Your task to perform on an android device: Open Amazon Image 0: 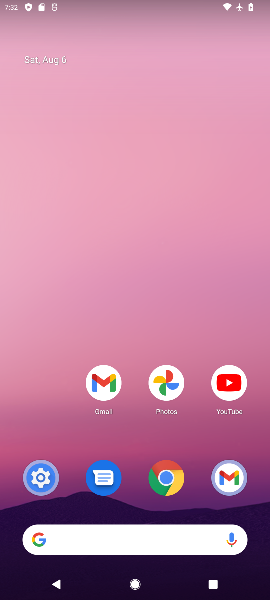
Step 0: press home button
Your task to perform on an android device: Open Amazon Image 1: 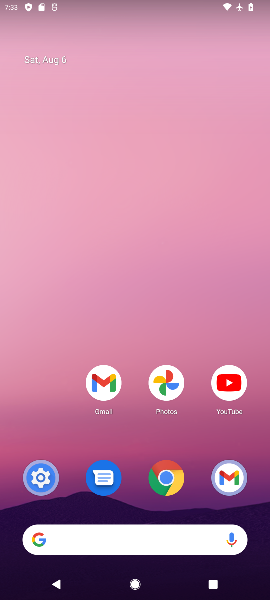
Step 1: click (43, 543)
Your task to perform on an android device: Open Amazon Image 2: 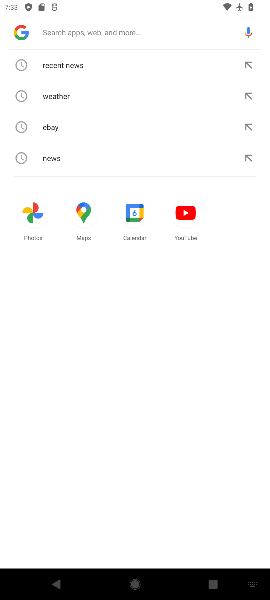
Step 2: type "Amazon"
Your task to perform on an android device: Open Amazon Image 3: 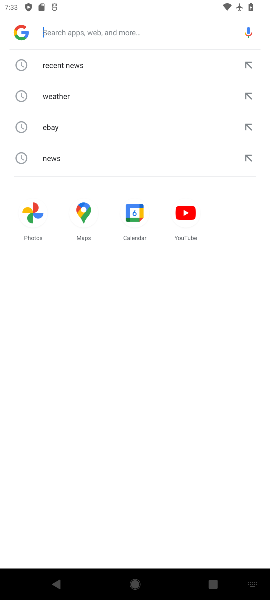
Step 3: click (61, 35)
Your task to perform on an android device: Open Amazon Image 4: 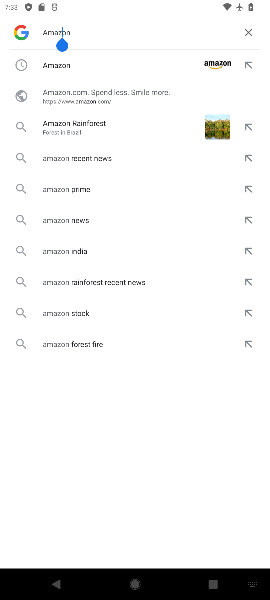
Step 4: click (216, 66)
Your task to perform on an android device: Open Amazon Image 5: 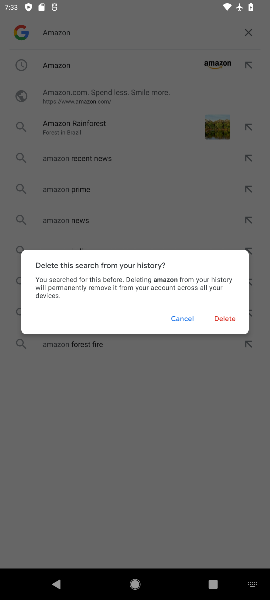
Step 5: click (224, 321)
Your task to perform on an android device: Open Amazon Image 6: 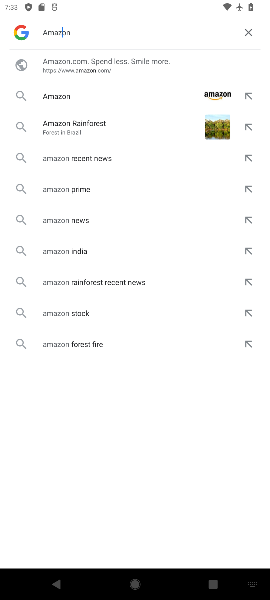
Step 6: click (212, 90)
Your task to perform on an android device: Open Amazon Image 7: 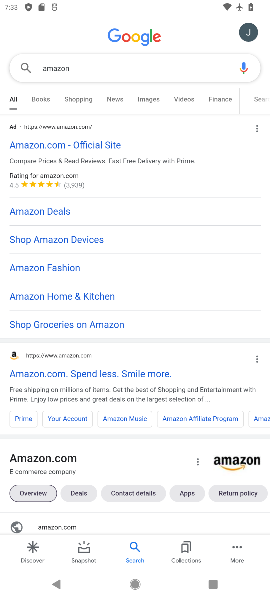
Step 7: click (33, 372)
Your task to perform on an android device: Open Amazon Image 8: 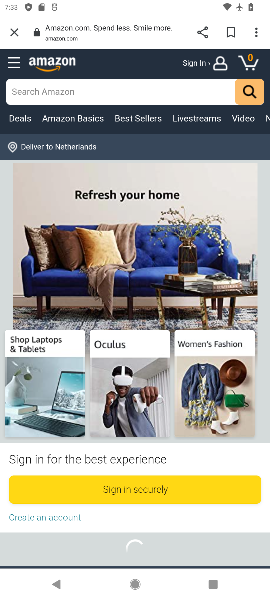
Step 8: task complete